Your task to perform on an android device: Search for vegetarian restaurants on Maps Image 0: 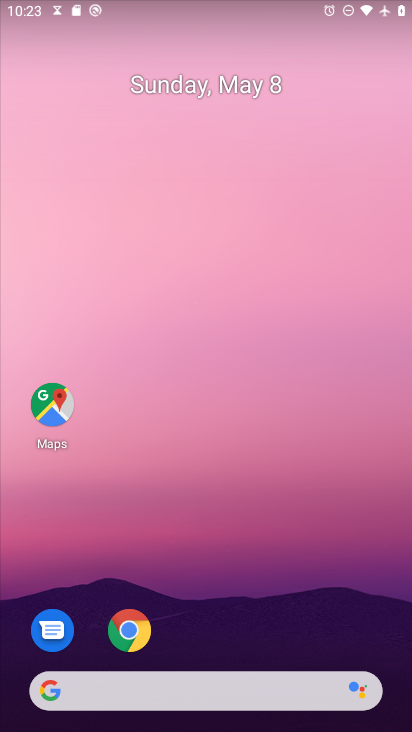
Step 0: click (55, 398)
Your task to perform on an android device: Search for vegetarian restaurants on Maps Image 1: 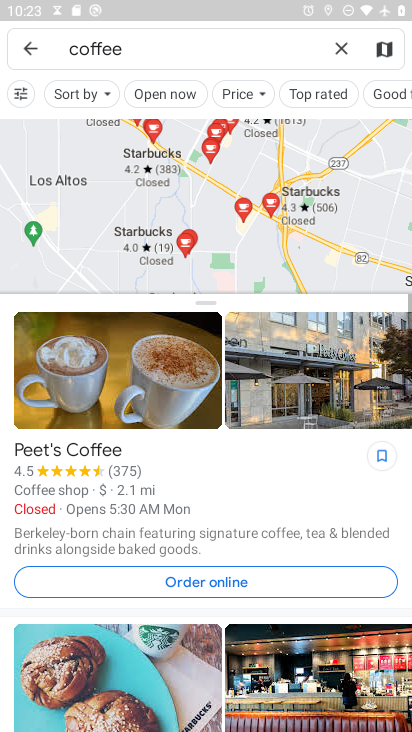
Step 1: click (336, 47)
Your task to perform on an android device: Search for vegetarian restaurants on Maps Image 2: 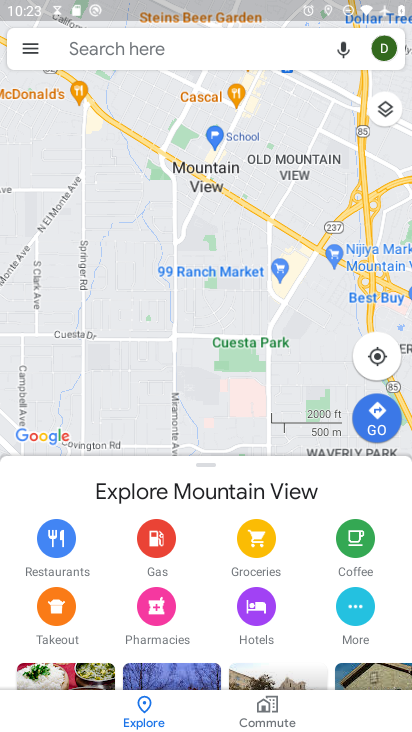
Step 2: click (186, 48)
Your task to perform on an android device: Search for vegetarian restaurants on Maps Image 3: 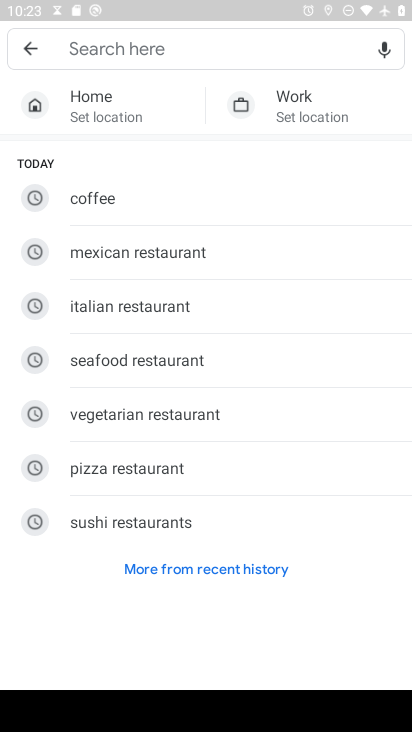
Step 3: click (198, 415)
Your task to perform on an android device: Search for vegetarian restaurants on Maps Image 4: 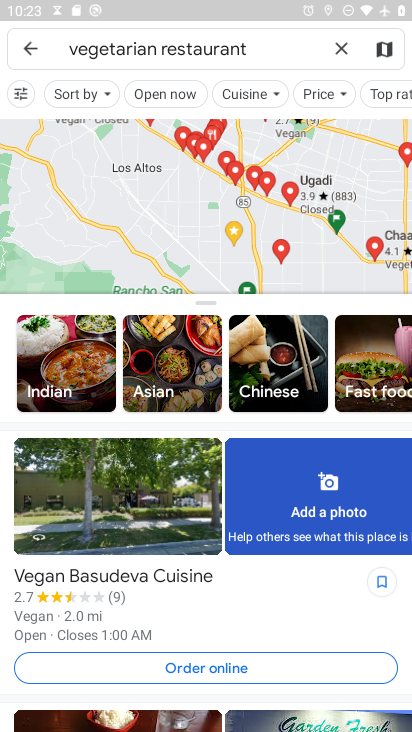
Step 4: task complete